Your task to perform on an android device: turn off translation in the chrome app Image 0: 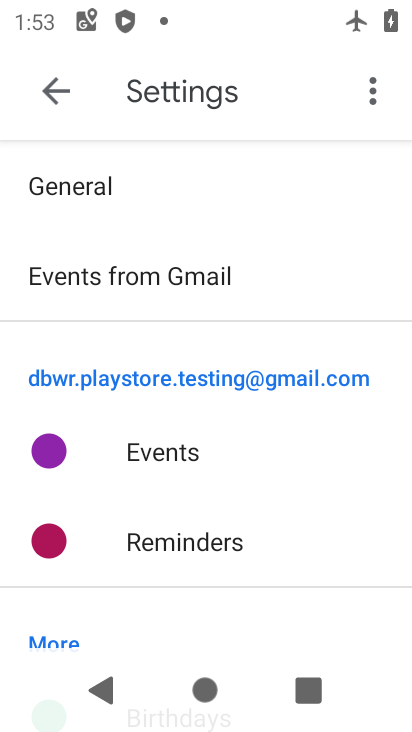
Step 0: press home button
Your task to perform on an android device: turn off translation in the chrome app Image 1: 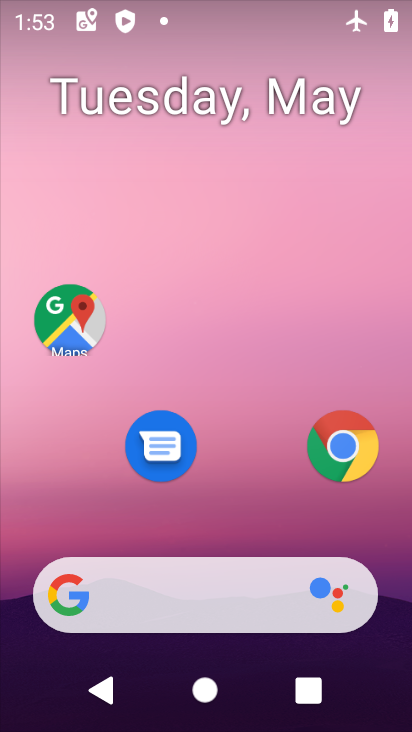
Step 1: click (344, 456)
Your task to perform on an android device: turn off translation in the chrome app Image 2: 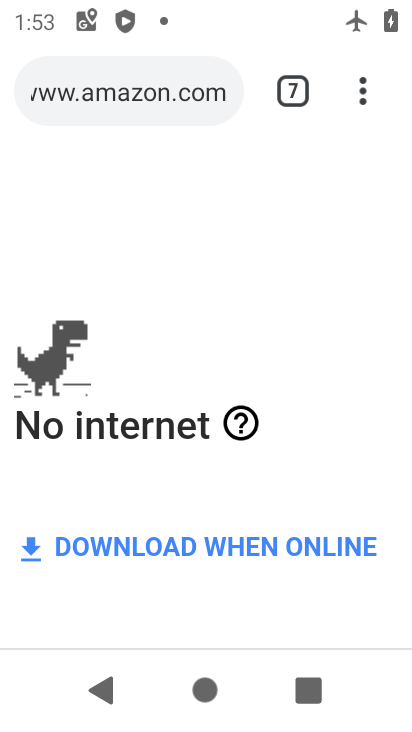
Step 2: click (368, 96)
Your task to perform on an android device: turn off translation in the chrome app Image 3: 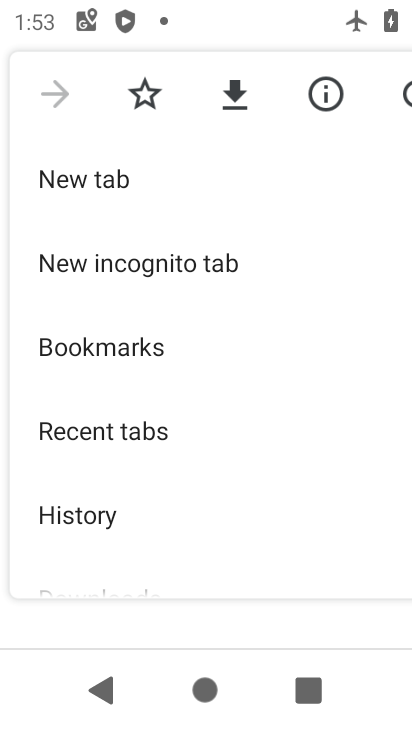
Step 3: drag from (222, 512) to (195, 77)
Your task to perform on an android device: turn off translation in the chrome app Image 4: 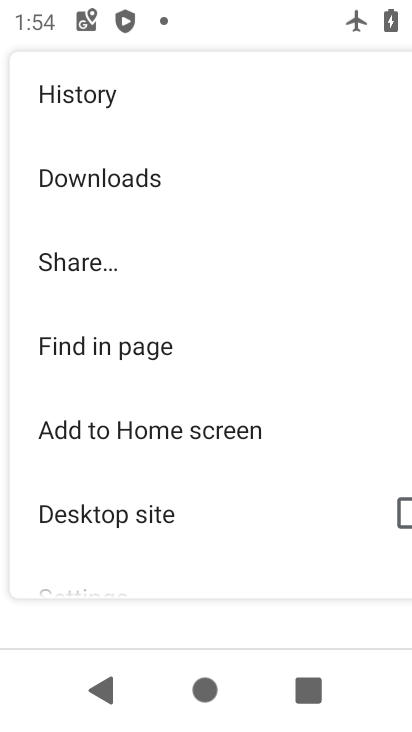
Step 4: click (129, 518)
Your task to perform on an android device: turn off translation in the chrome app Image 5: 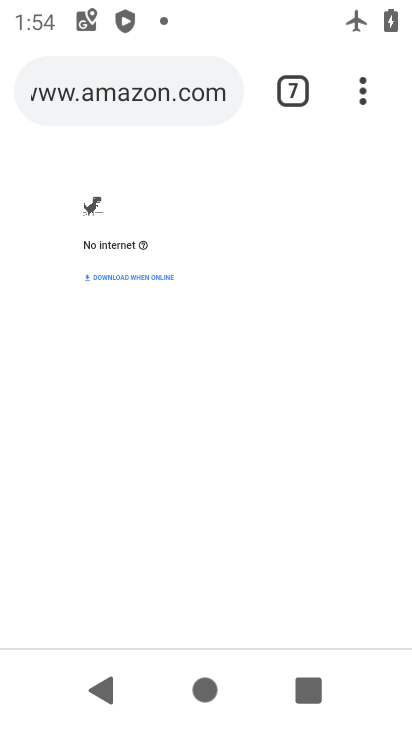
Step 5: click (366, 98)
Your task to perform on an android device: turn off translation in the chrome app Image 6: 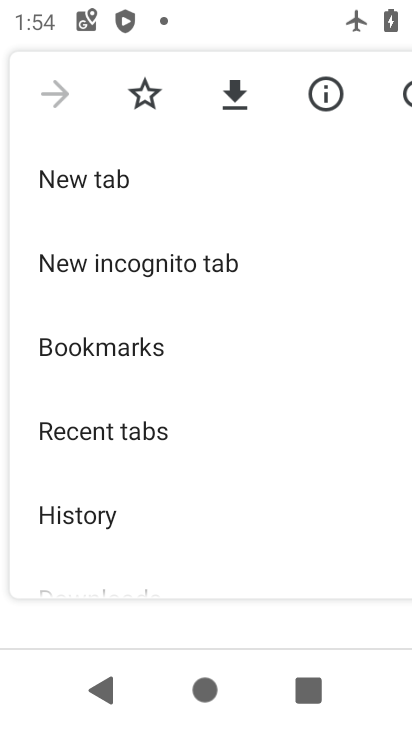
Step 6: drag from (225, 513) to (221, 0)
Your task to perform on an android device: turn off translation in the chrome app Image 7: 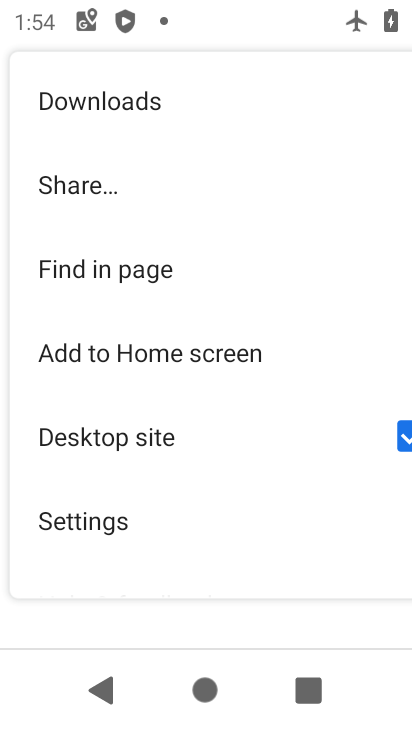
Step 7: click (110, 521)
Your task to perform on an android device: turn off translation in the chrome app Image 8: 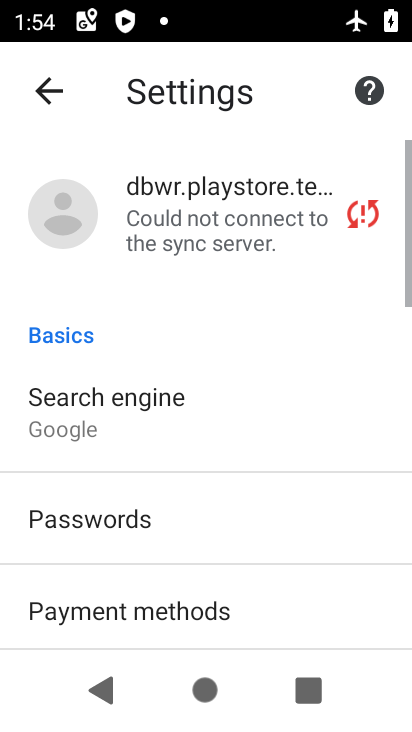
Step 8: drag from (110, 521) to (67, 87)
Your task to perform on an android device: turn off translation in the chrome app Image 9: 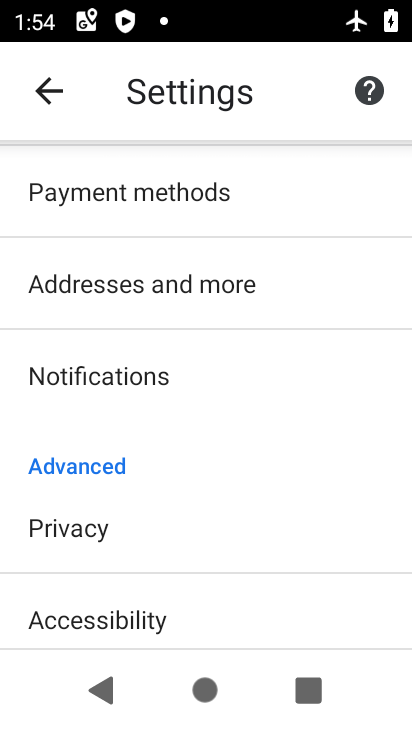
Step 9: drag from (144, 558) to (104, 166)
Your task to perform on an android device: turn off translation in the chrome app Image 10: 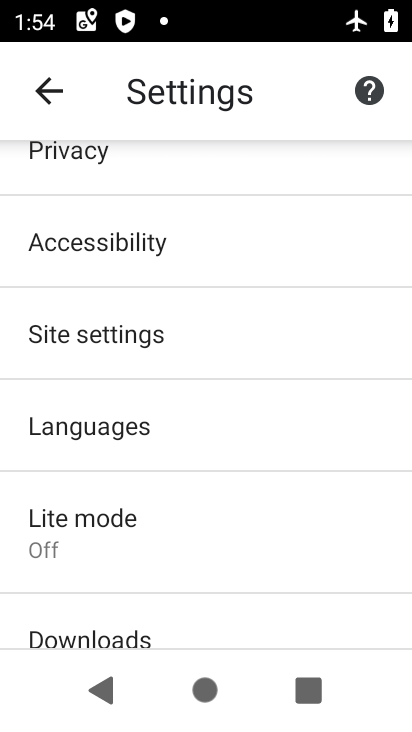
Step 10: click (138, 424)
Your task to perform on an android device: turn off translation in the chrome app Image 11: 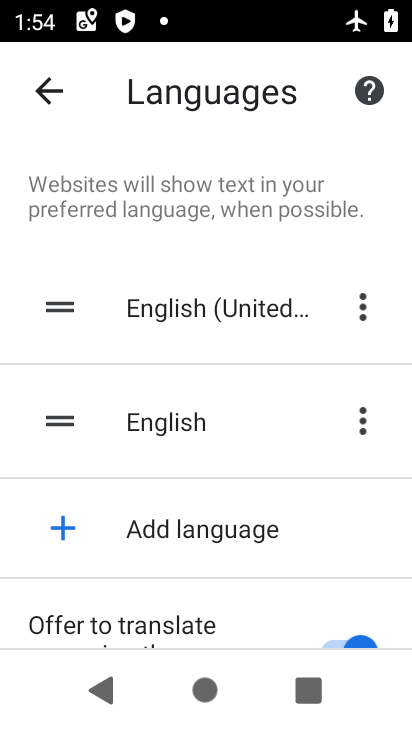
Step 11: drag from (211, 591) to (175, 356)
Your task to perform on an android device: turn off translation in the chrome app Image 12: 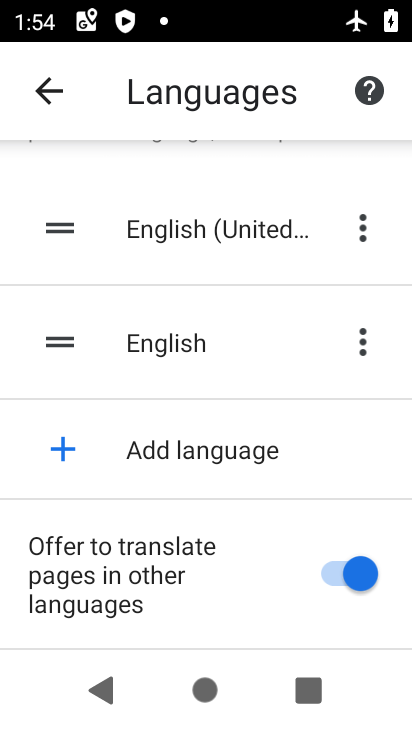
Step 12: click (361, 569)
Your task to perform on an android device: turn off translation in the chrome app Image 13: 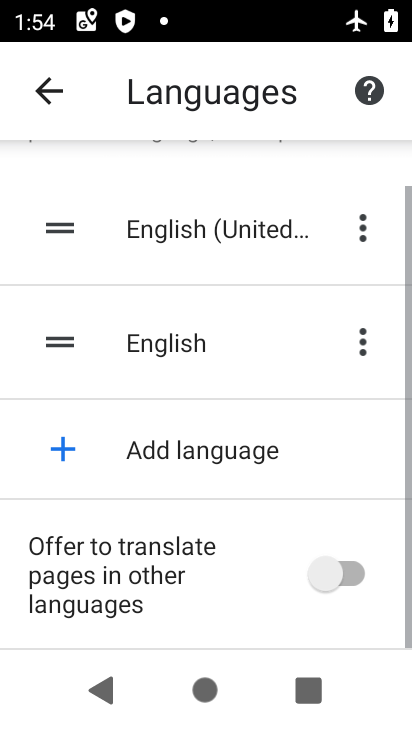
Step 13: task complete